Your task to perform on an android device: Open Google Chrome and open the bookmarks view Image 0: 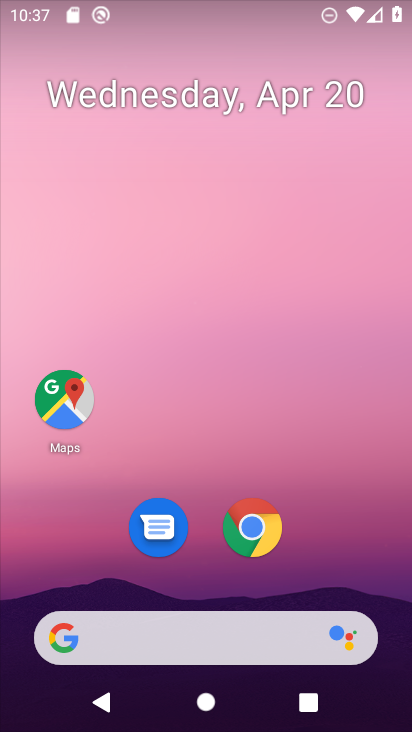
Step 0: click (240, 538)
Your task to perform on an android device: Open Google Chrome and open the bookmarks view Image 1: 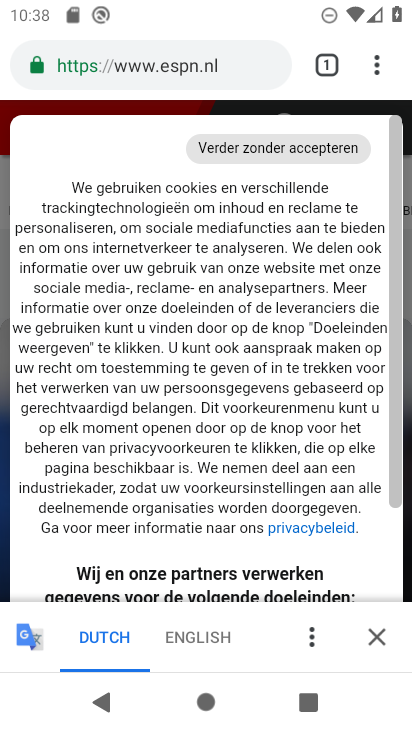
Step 1: click (386, 55)
Your task to perform on an android device: Open Google Chrome and open the bookmarks view Image 2: 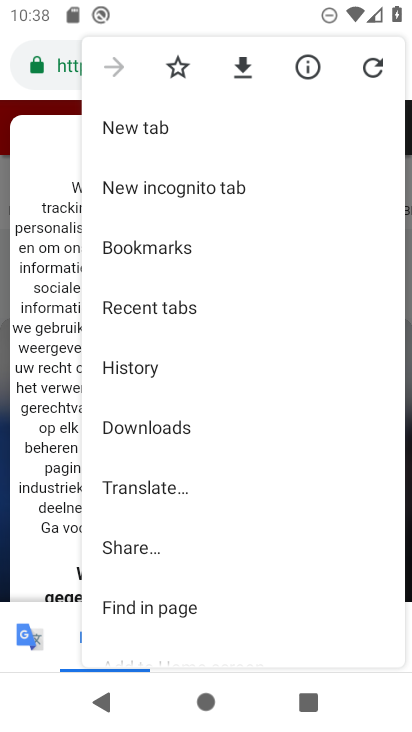
Step 2: click (180, 240)
Your task to perform on an android device: Open Google Chrome and open the bookmarks view Image 3: 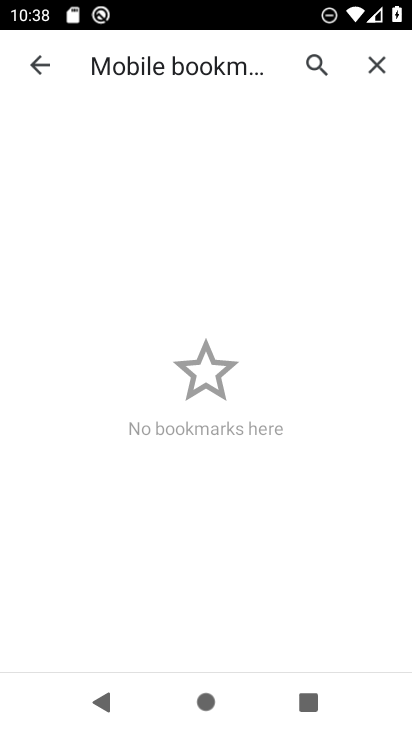
Step 3: task complete